Your task to perform on an android device: Open my contact list Image 0: 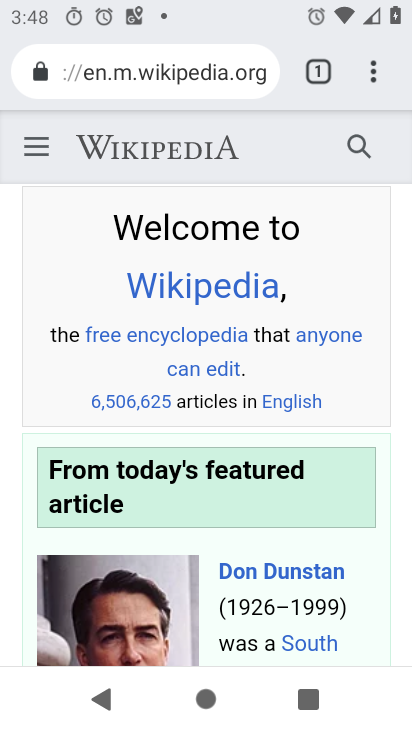
Step 0: press home button
Your task to perform on an android device: Open my contact list Image 1: 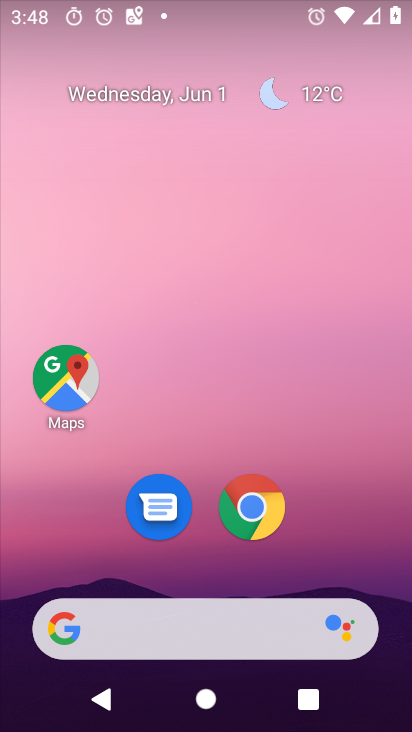
Step 1: drag from (328, 587) to (265, 2)
Your task to perform on an android device: Open my contact list Image 2: 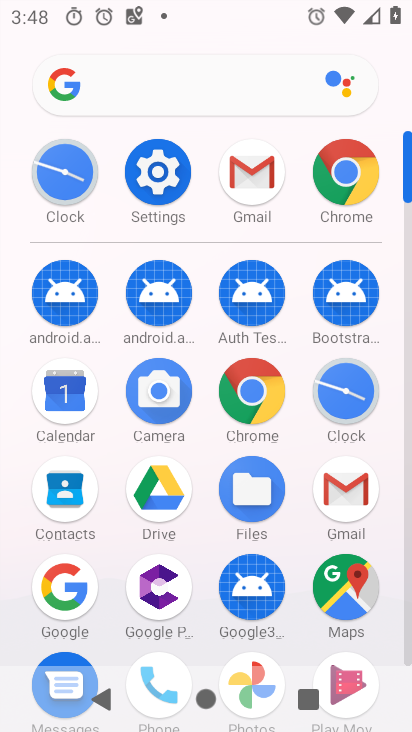
Step 2: click (60, 501)
Your task to perform on an android device: Open my contact list Image 3: 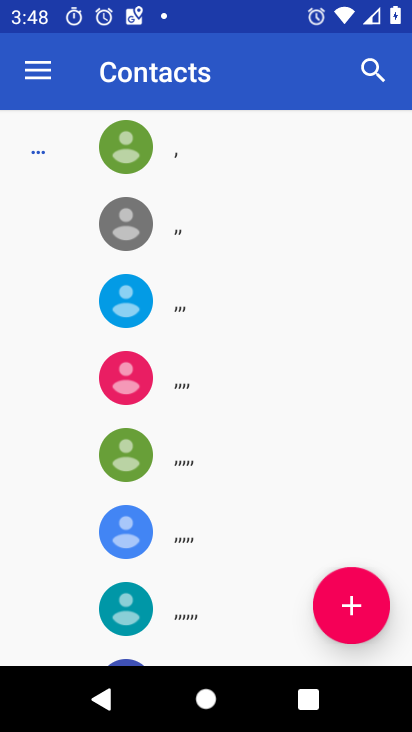
Step 3: task complete